Your task to perform on an android device: open chrome and create a bookmark for the current page Image 0: 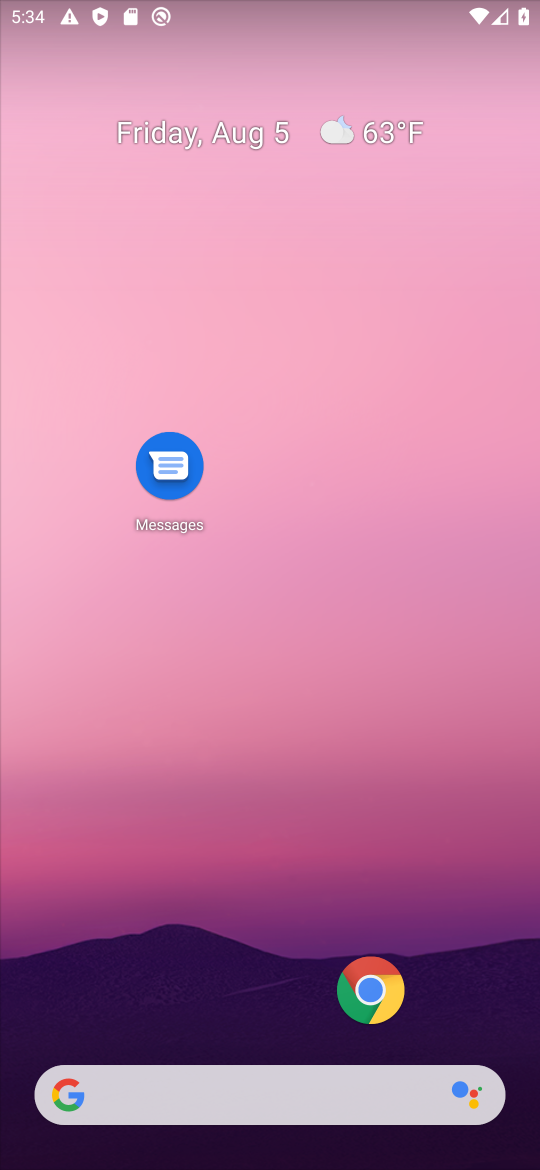
Step 0: click (349, 980)
Your task to perform on an android device: open chrome and create a bookmark for the current page Image 1: 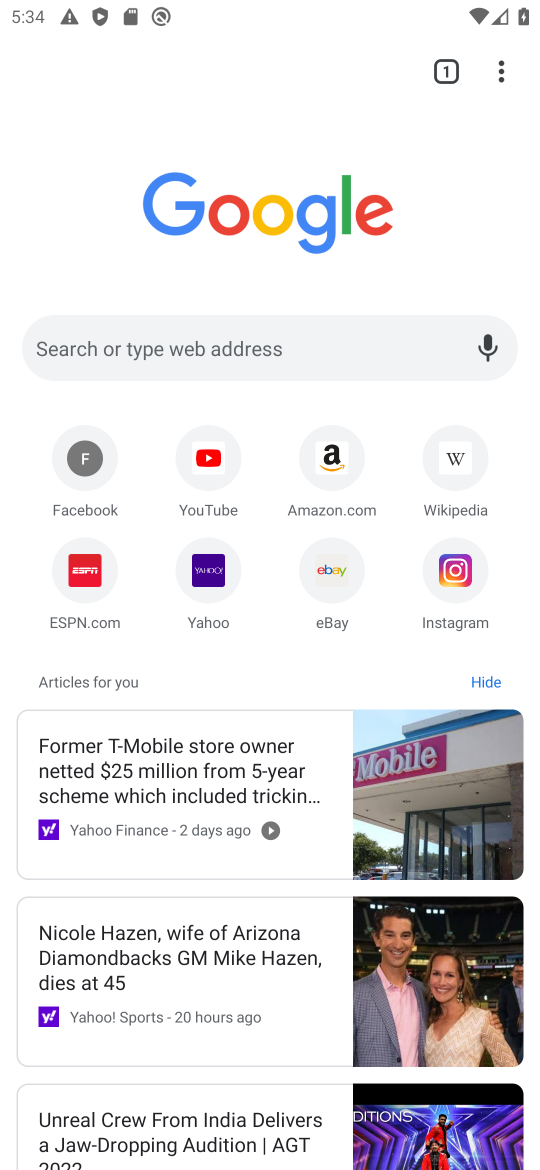
Step 1: click (491, 71)
Your task to perform on an android device: open chrome and create a bookmark for the current page Image 2: 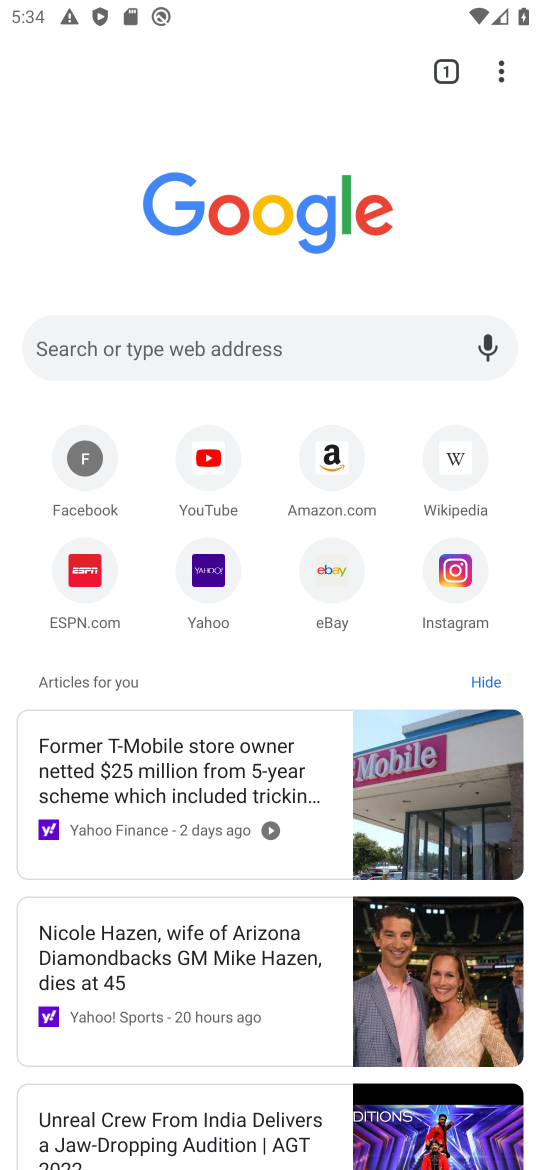
Step 2: click (497, 73)
Your task to perform on an android device: open chrome and create a bookmark for the current page Image 3: 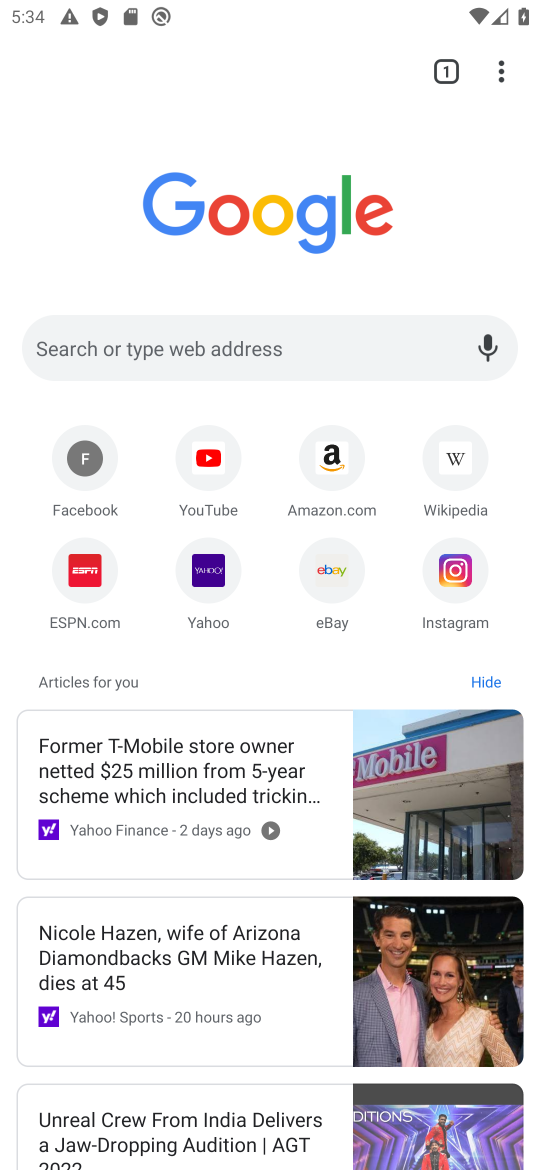
Step 3: click (504, 75)
Your task to perform on an android device: open chrome and create a bookmark for the current page Image 4: 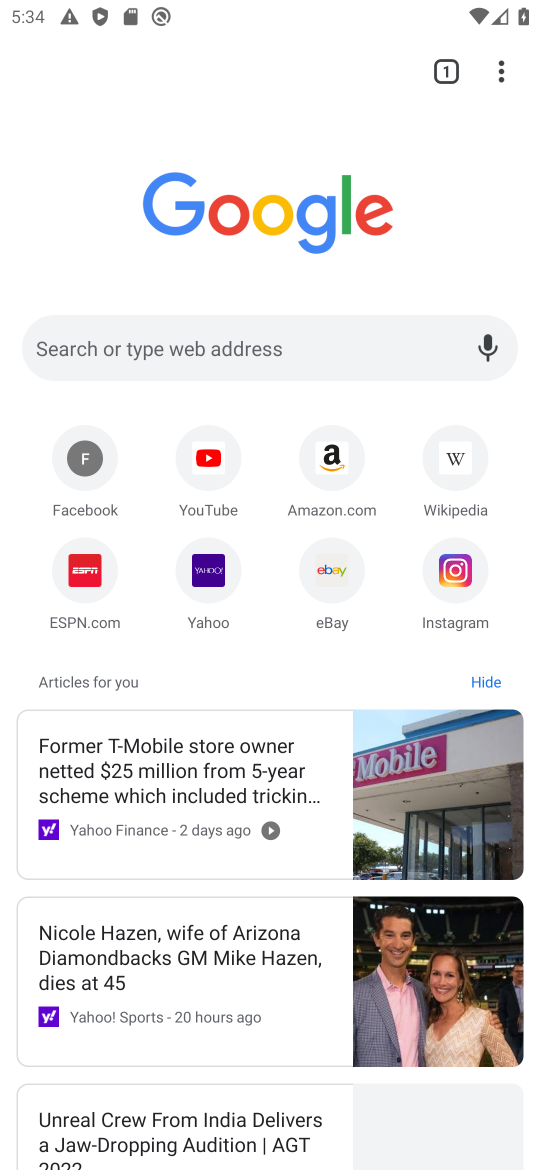
Step 4: click (506, 74)
Your task to perform on an android device: open chrome and create a bookmark for the current page Image 5: 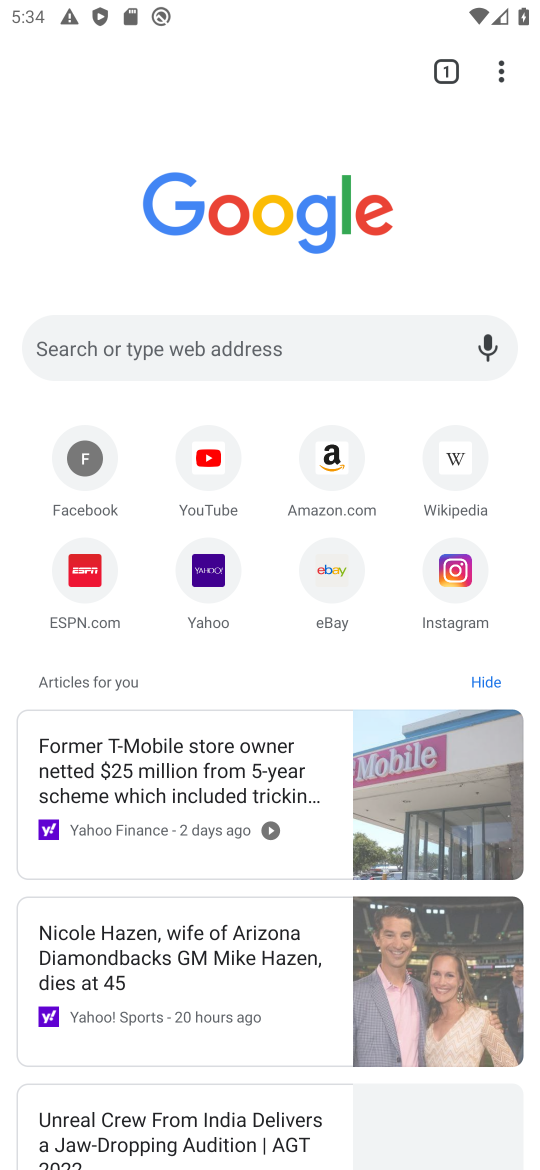
Step 5: click (506, 59)
Your task to perform on an android device: open chrome and create a bookmark for the current page Image 6: 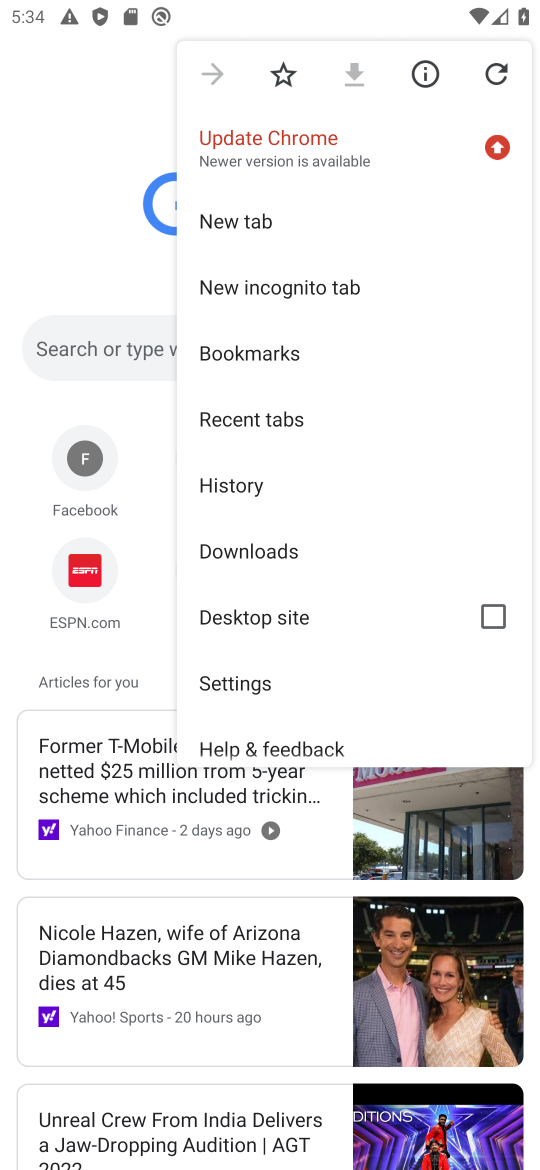
Step 6: click (272, 71)
Your task to perform on an android device: open chrome and create a bookmark for the current page Image 7: 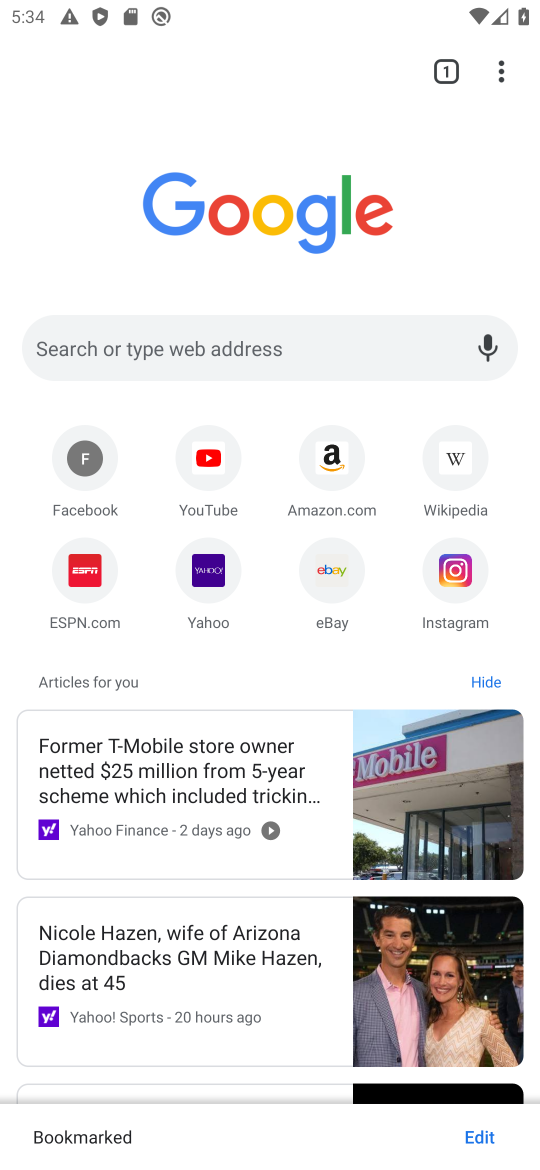
Step 7: task complete